Your task to perform on an android device: change timer sound Image 0: 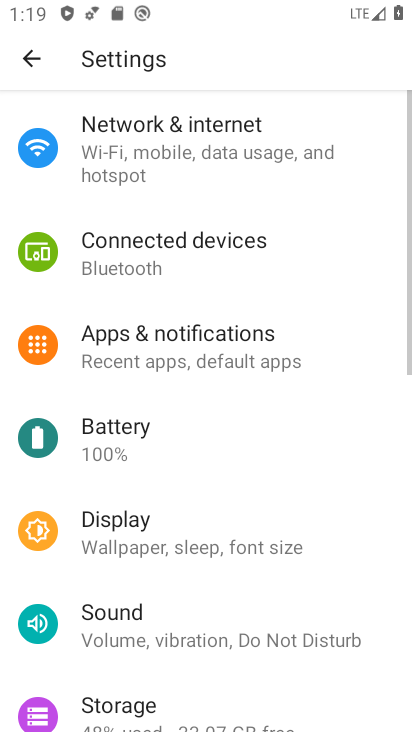
Step 0: press home button
Your task to perform on an android device: change timer sound Image 1: 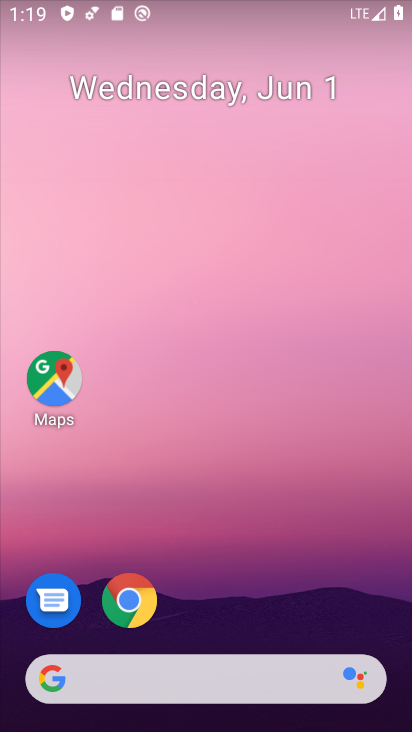
Step 1: drag from (248, 584) to (352, 58)
Your task to perform on an android device: change timer sound Image 2: 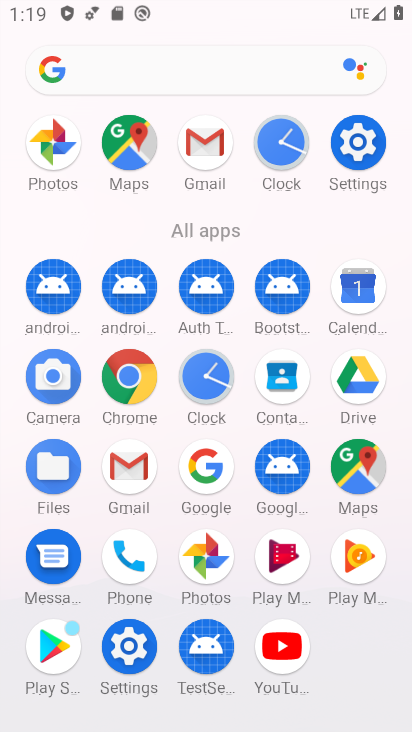
Step 2: click (208, 402)
Your task to perform on an android device: change timer sound Image 3: 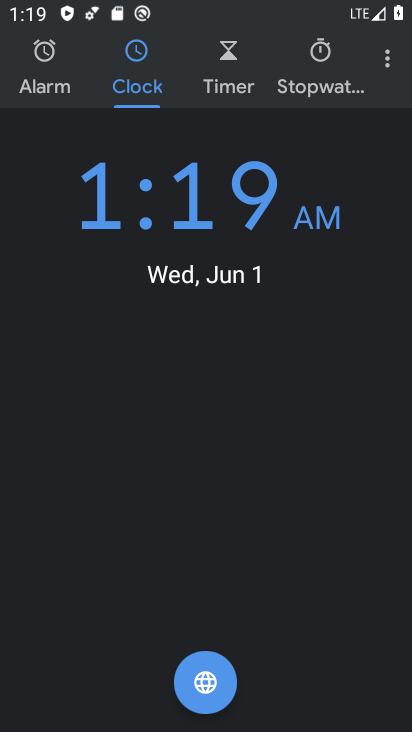
Step 3: click (390, 73)
Your task to perform on an android device: change timer sound Image 4: 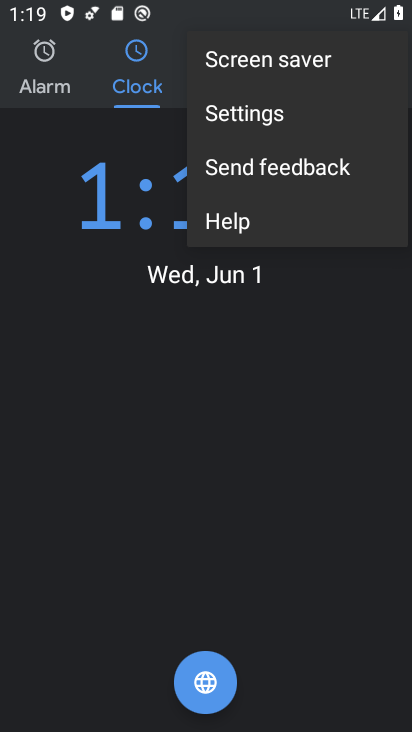
Step 4: click (352, 122)
Your task to perform on an android device: change timer sound Image 5: 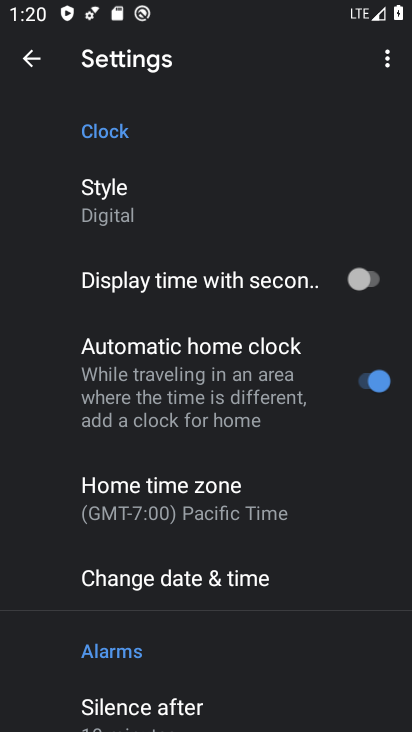
Step 5: drag from (217, 595) to (313, 204)
Your task to perform on an android device: change timer sound Image 6: 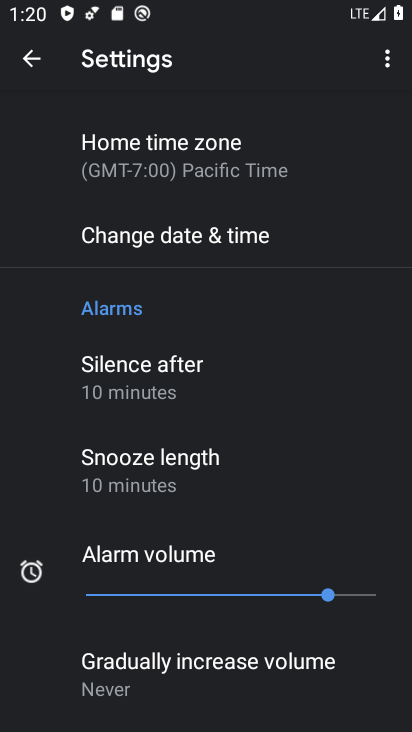
Step 6: drag from (219, 618) to (290, 335)
Your task to perform on an android device: change timer sound Image 7: 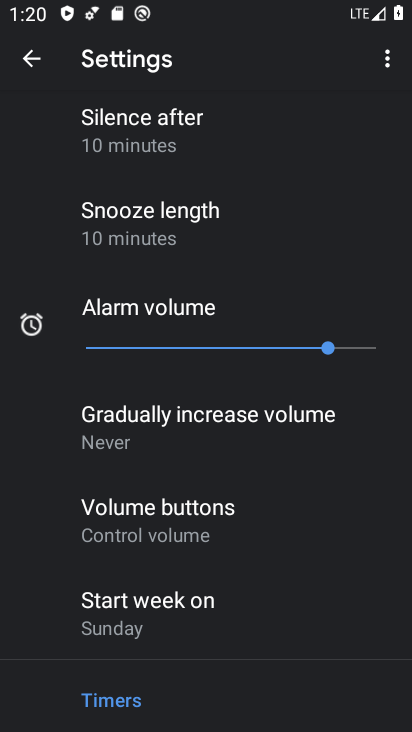
Step 7: drag from (229, 663) to (359, 272)
Your task to perform on an android device: change timer sound Image 8: 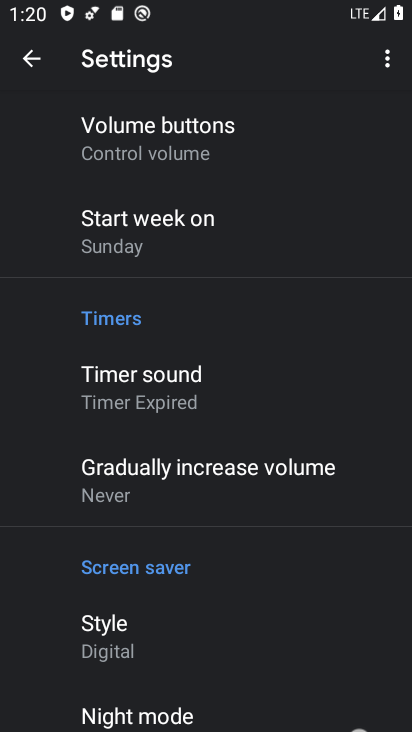
Step 8: click (229, 387)
Your task to perform on an android device: change timer sound Image 9: 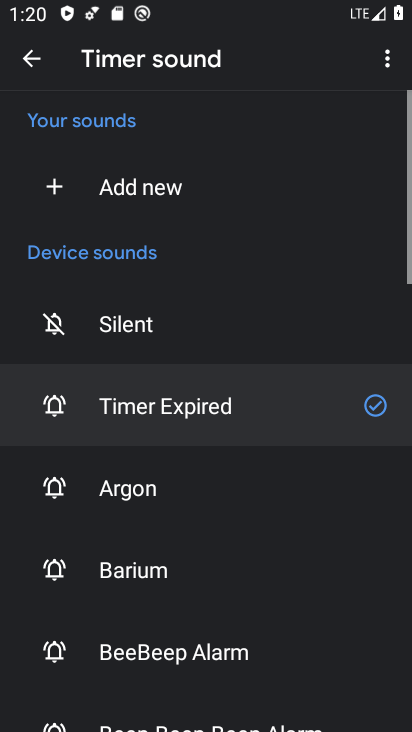
Step 9: drag from (243, 493) to (289, 328)
Your task to perform on an android device: change timer sound Image 10: 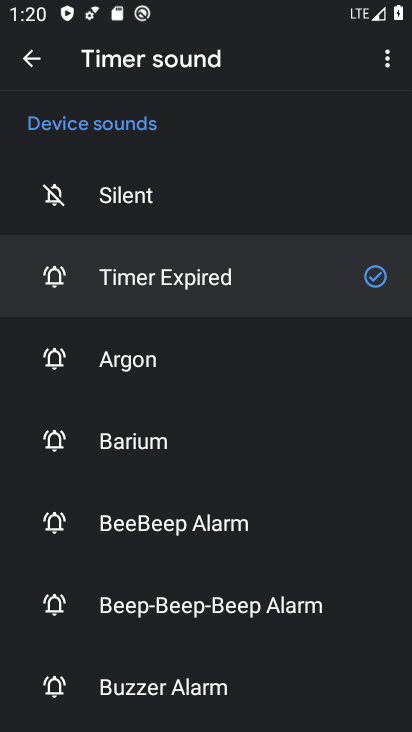
Step 10: click (235, 527)
Your task to perform on an android device: change timer sound Image 11: 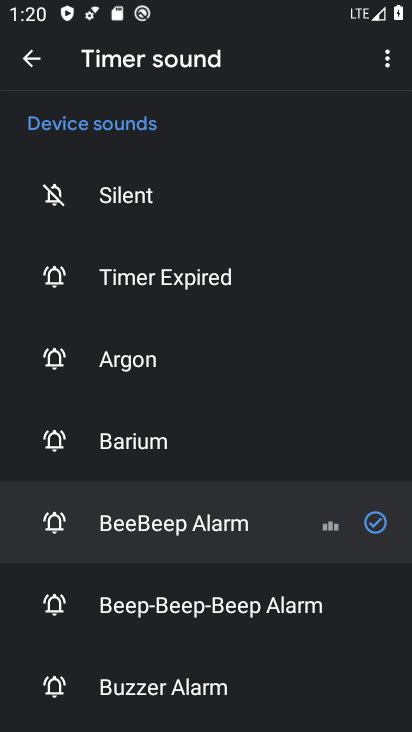
Step 11: click (205, 716)
Your task to perform on an android device: change timer sound Image 12: 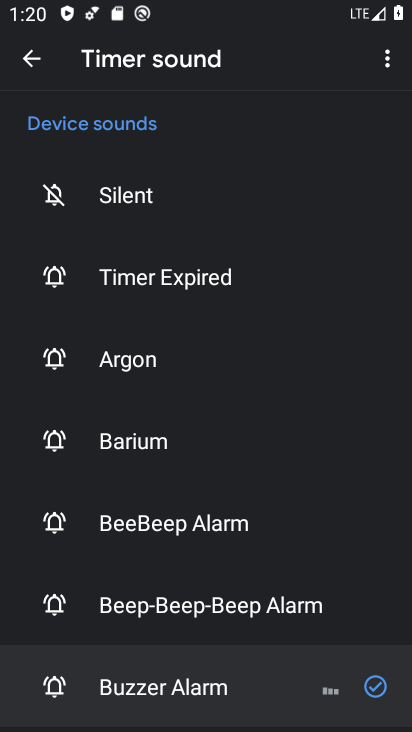
Step 12: task complete